Your task to perform on an android device: View the shopping cart on ebay.com. Add "razer blade" to the cart on ebay.com, then select checkout. Image 0: 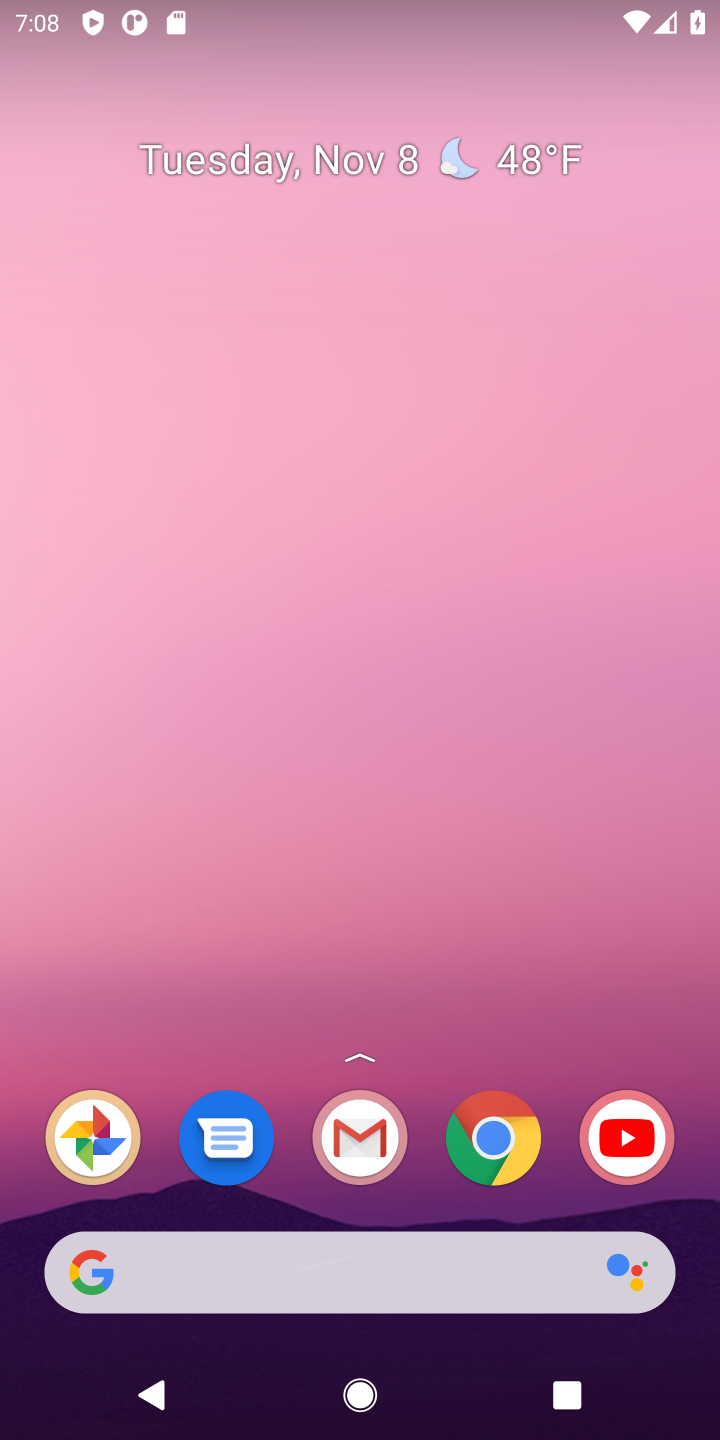
Step 0: click (492, 1147)
Your task to perform on an android device: View the shopping cart on ebay.com. Add "razer blade" to the cart on ebay.com, then select checkout. Image 1: 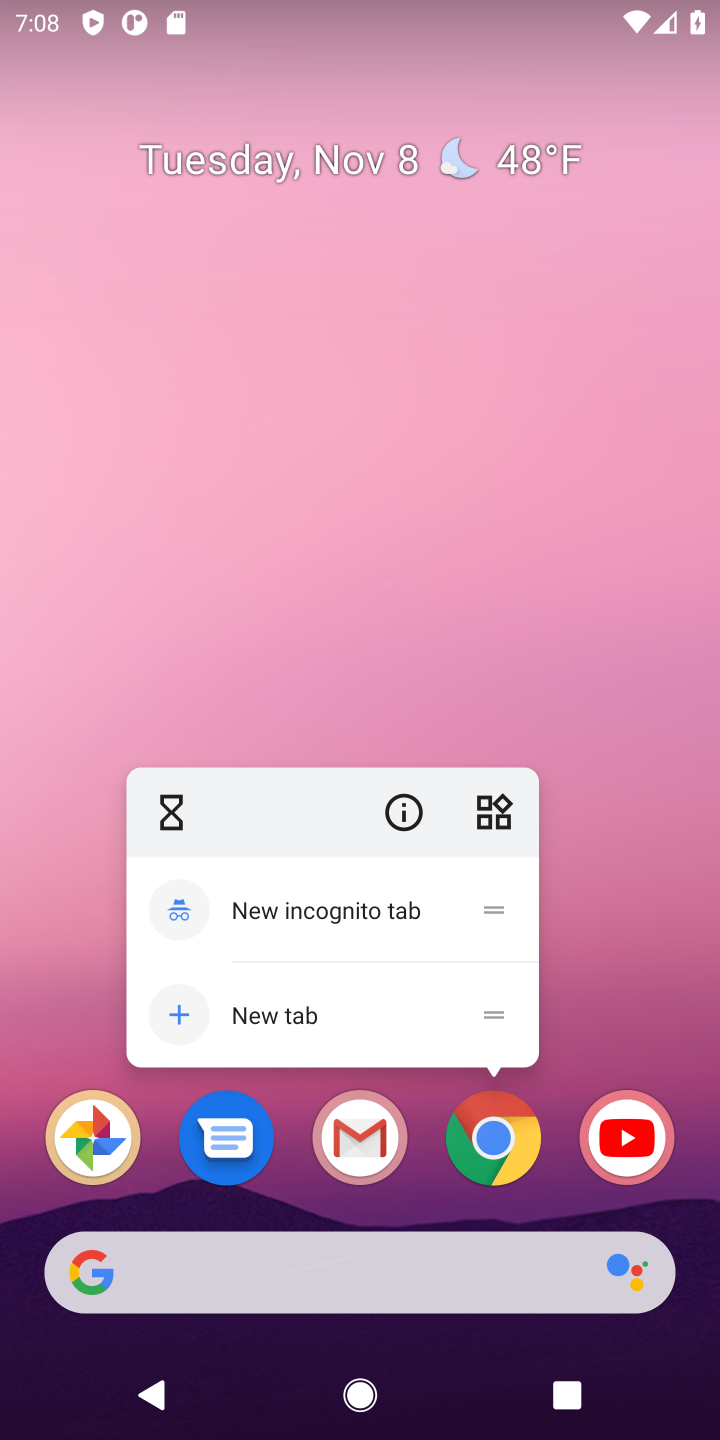
Step 1: click (483, 1134)
Your task to perform on an android device: View the shopping cart on ebay.com. Add "razer blade" to the cart on ebay.com, then select checkout. Image 2: 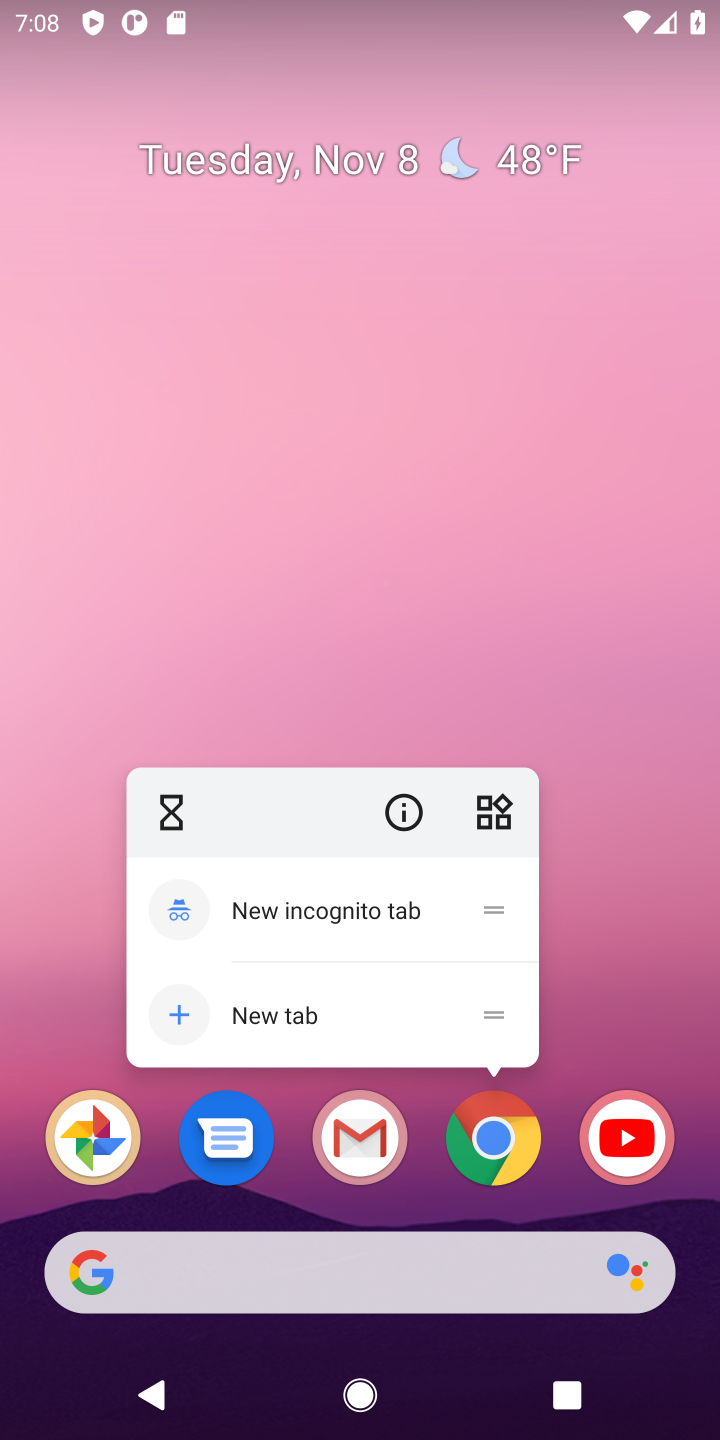
Step 2: click (483, 1136)
Your task to perform on an android device: View the shopping cart on ebay.com. Add "razer blade" to the cart on ebay.com, then select checkout. Image 3: 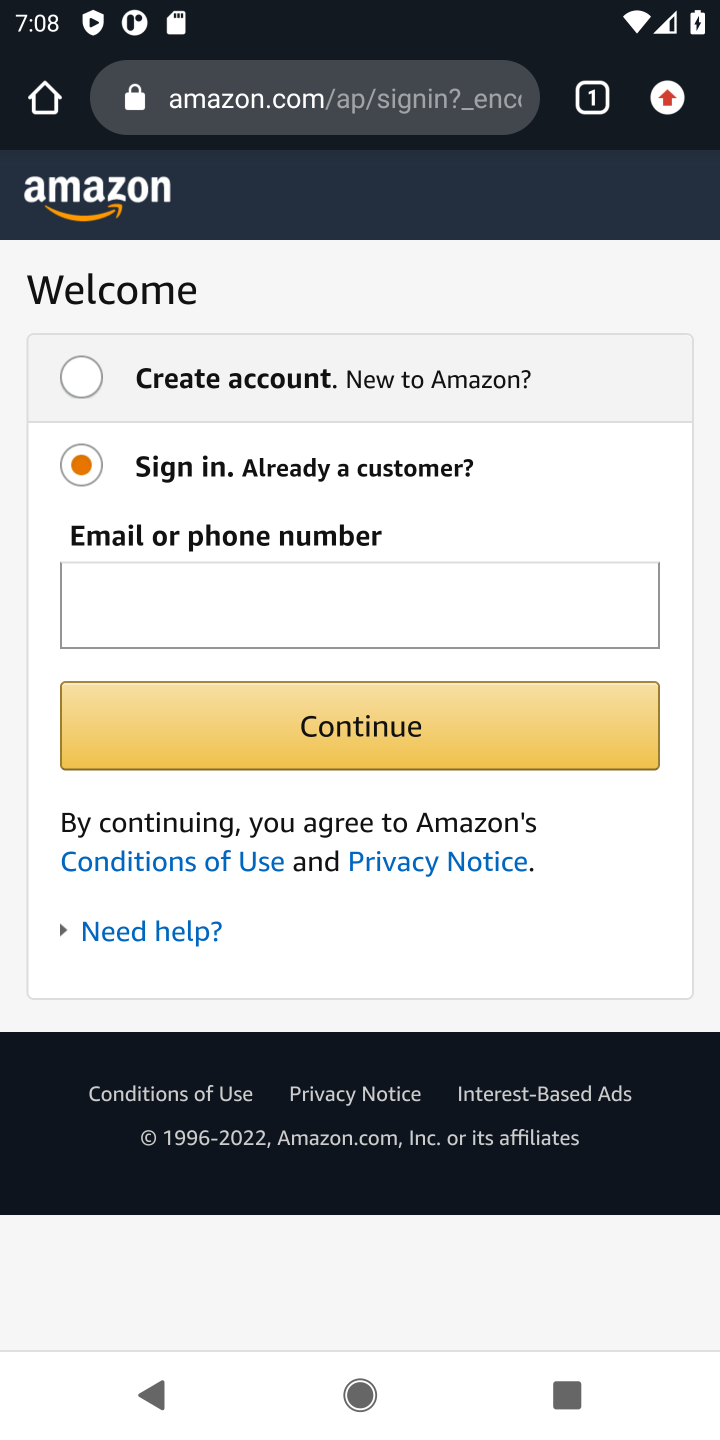
Step 3: click (441, 96)
Your task to perform on an android device: View the shopping cart on ebay.com. Add "razer blade" to the cart on ebay.com, then select checkout. Image 4: 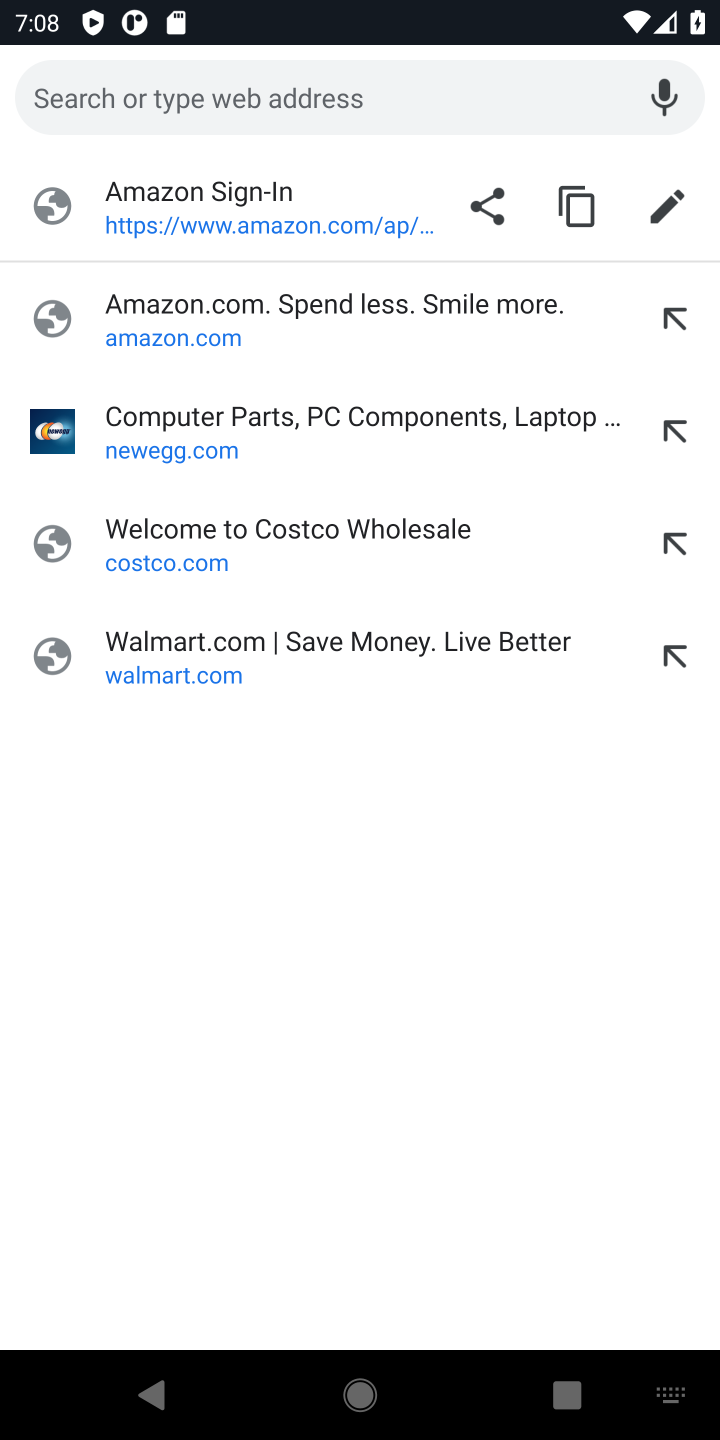
Step 4: type " ebay.com"
Your task to perform on an android device: View the shopping cart on ebay.com. Add "razer blade" to the cart on ebay.com, then select checkout. Image 5: 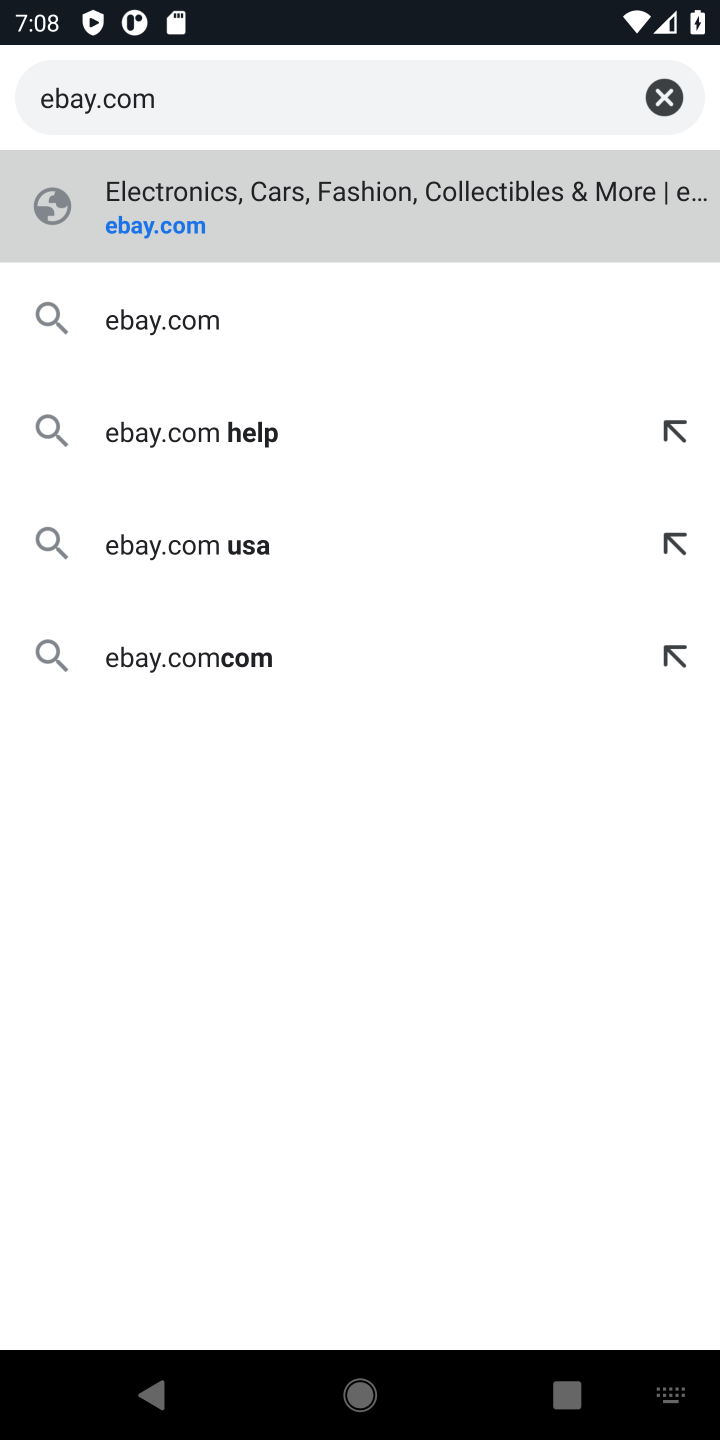
Step 5: press enter
Your task to perform on an android device: View the shopping cart on ebay.com. Add "razer blade" to the cart on ebay.com, then select checkout. Image 6: 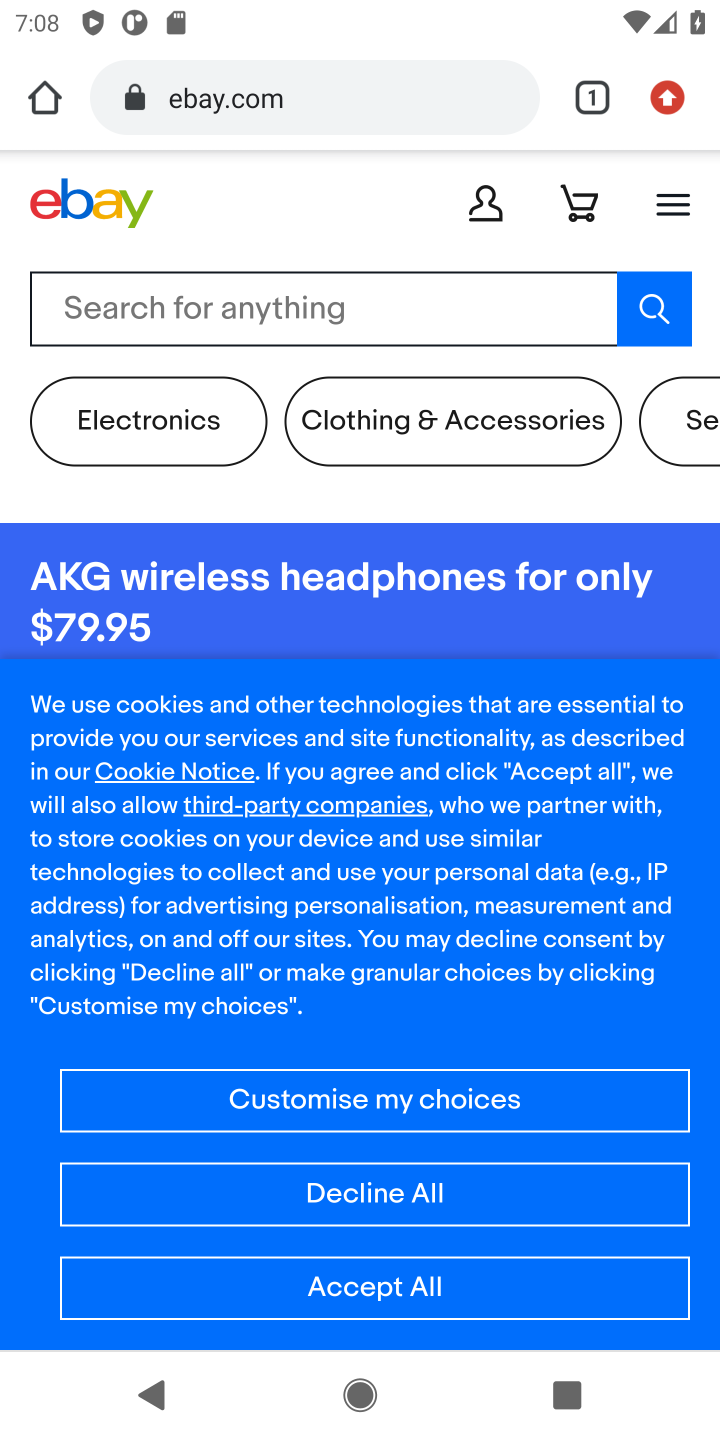
Step 6: click (357, 1291)
Your task to perform on an android device: View the shopping cart on ebay.com. Add "razer blade" to the cart on ebay.com, then select checkout. Image 7: 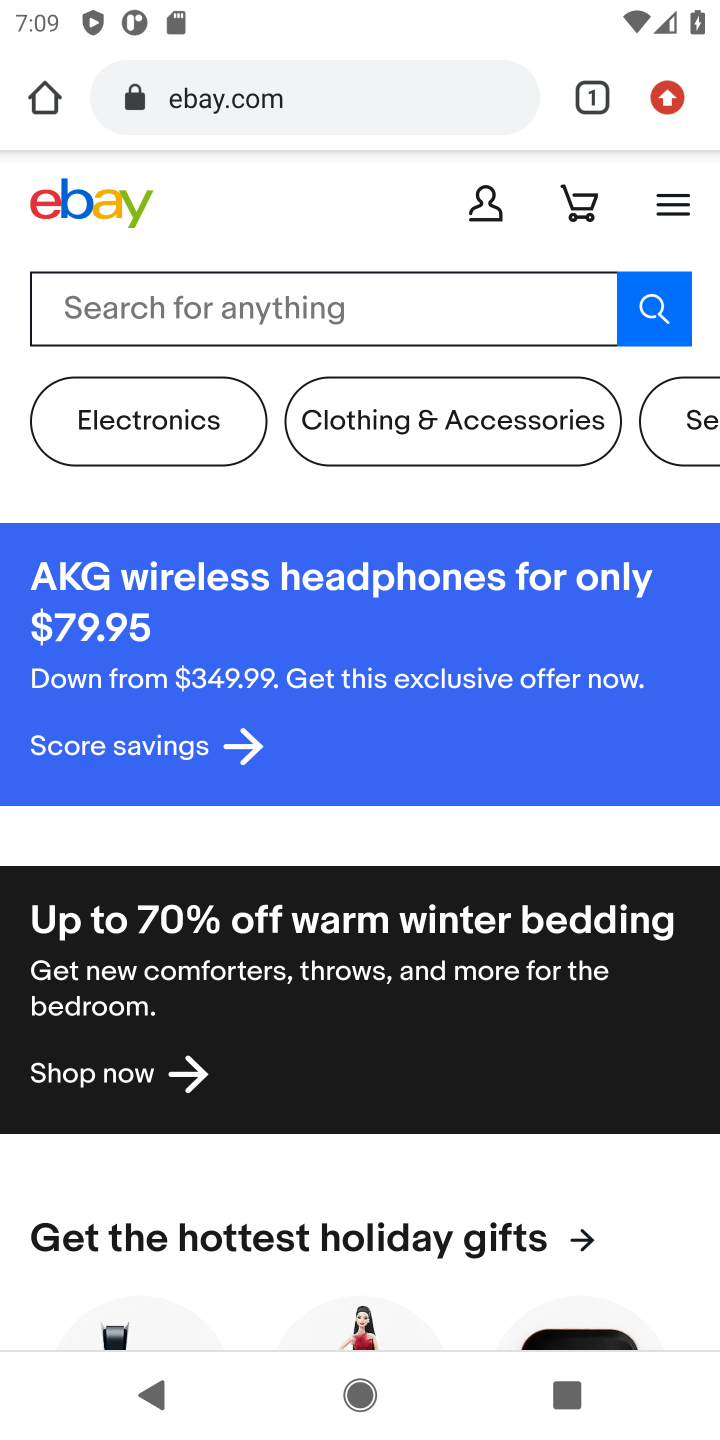
Step 7: click (312, 304)
Your task to perform on an android device: View the shopping cart on ebay.com. Add "razer blade" to the cart on ebay.com, then select checkout. Image 8: 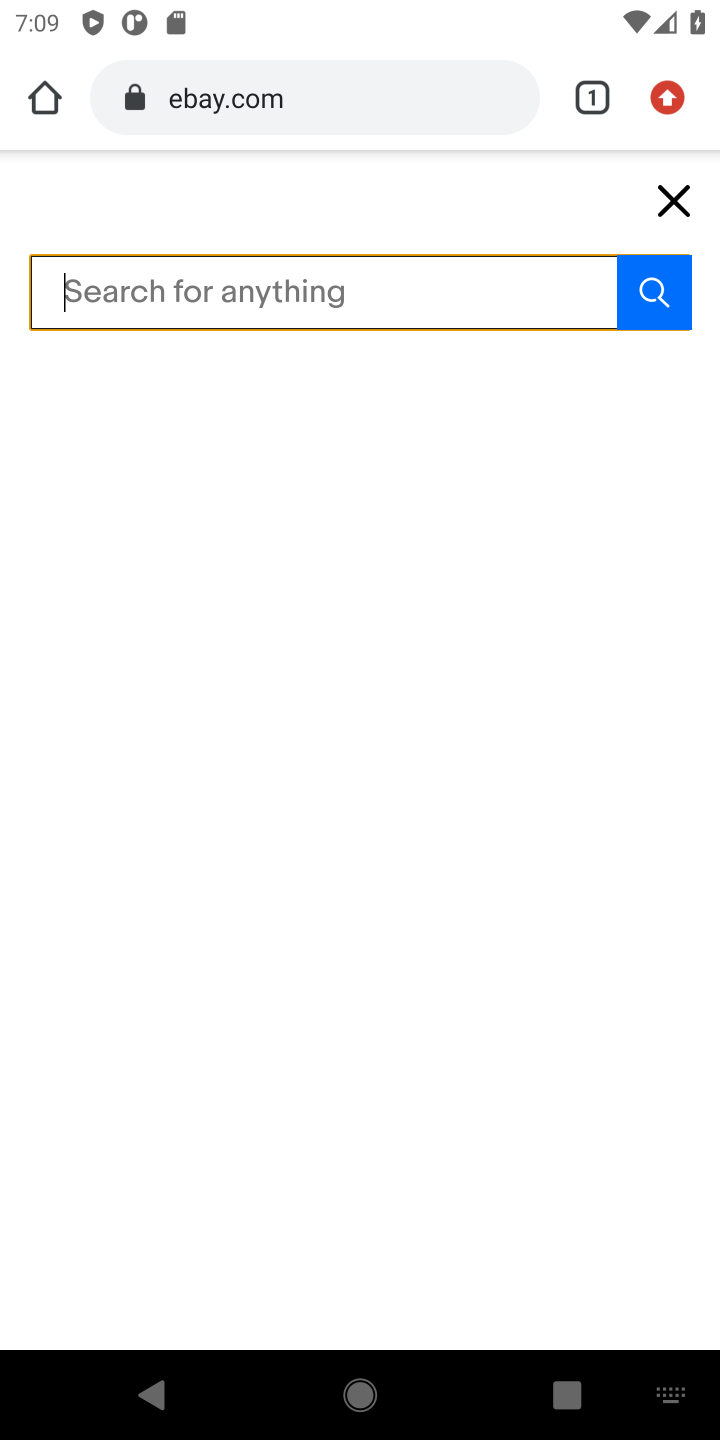
Step 8: type "razer blade"
Your task to perform on an android device: View the shopping cart on ebay.com. Add "razer blade" to the cart on ebay.com, then select checkout. Image 9: 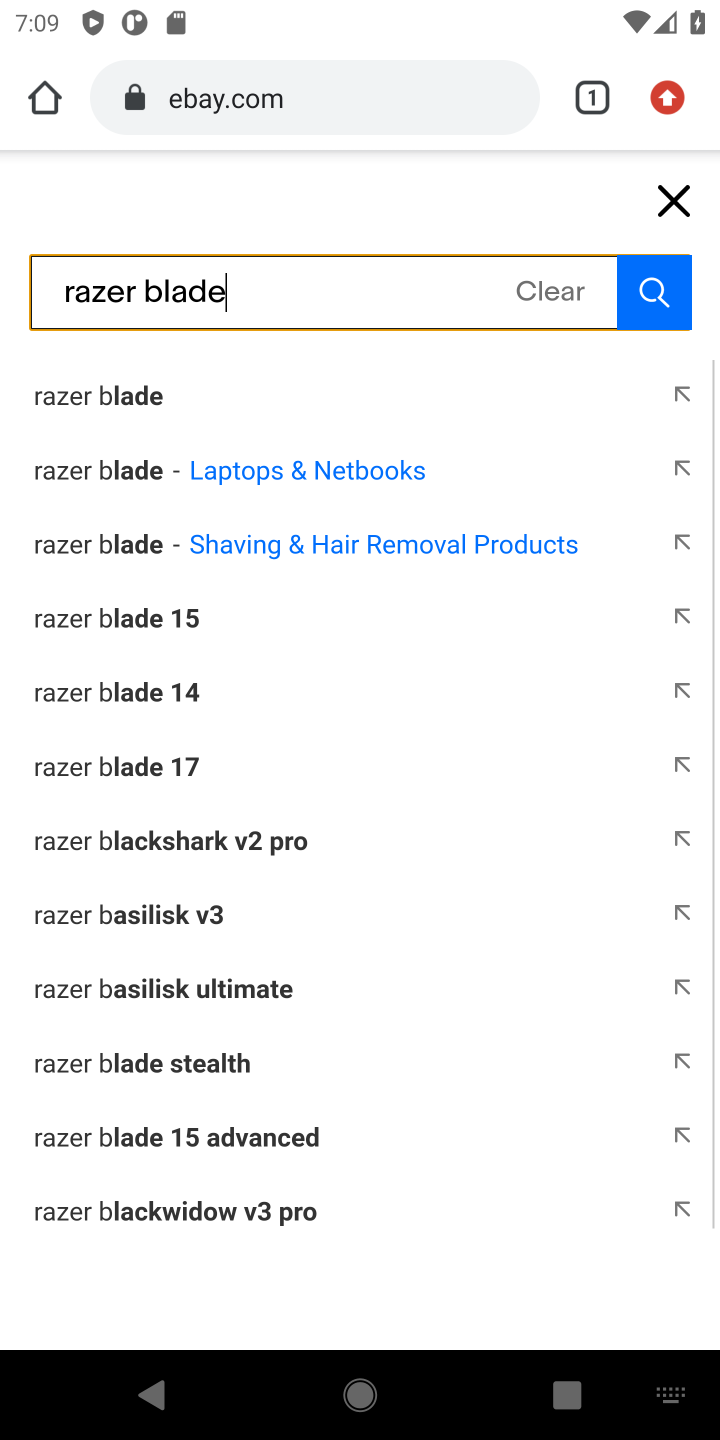
Step 9: press enter
Your task to perform on an android device: View the shopping cart on ebay.com. Add "razer blade" to the cart on ebay.com, then select checkout. Image 10: 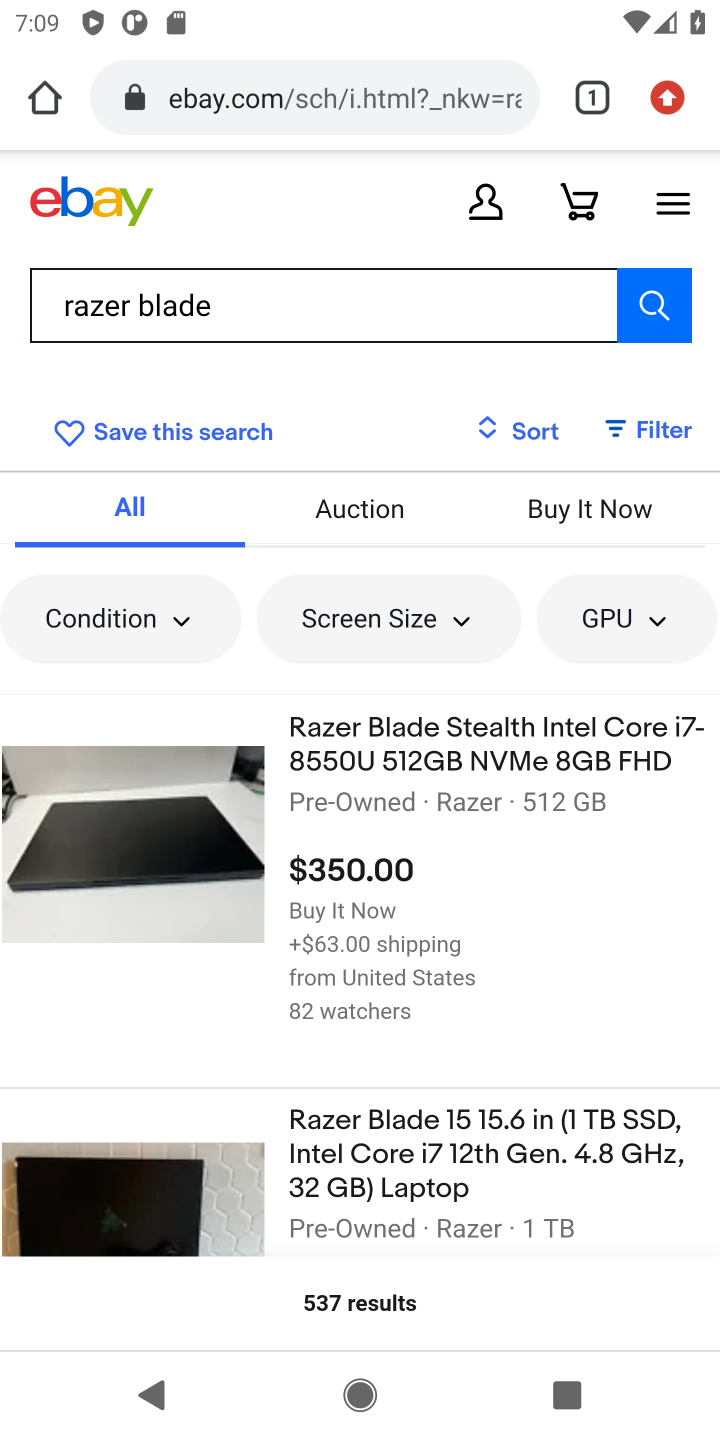
Step 10: click (484, 792)
Your task to perform on an android device: View the shopping cart on ebay.com. Add "razer blade" to the cart on ebay.com, then select checkout. Image 11: 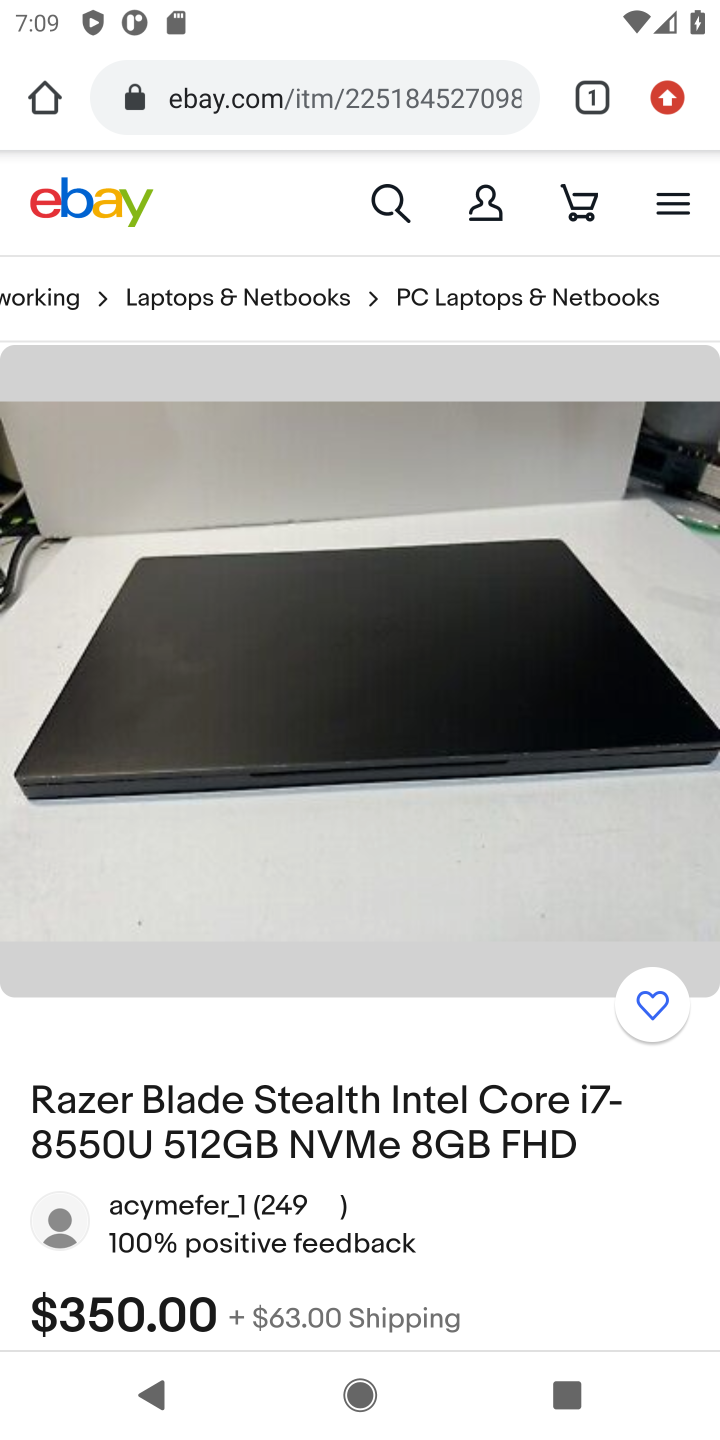
Step 11: drag from (357, 1145) to (557, 208)
Your task to perform on an android device: View the shopping cart on ebay.com. Add "razer blade" to the cart on ebay.com, then select checkout. Image 12: 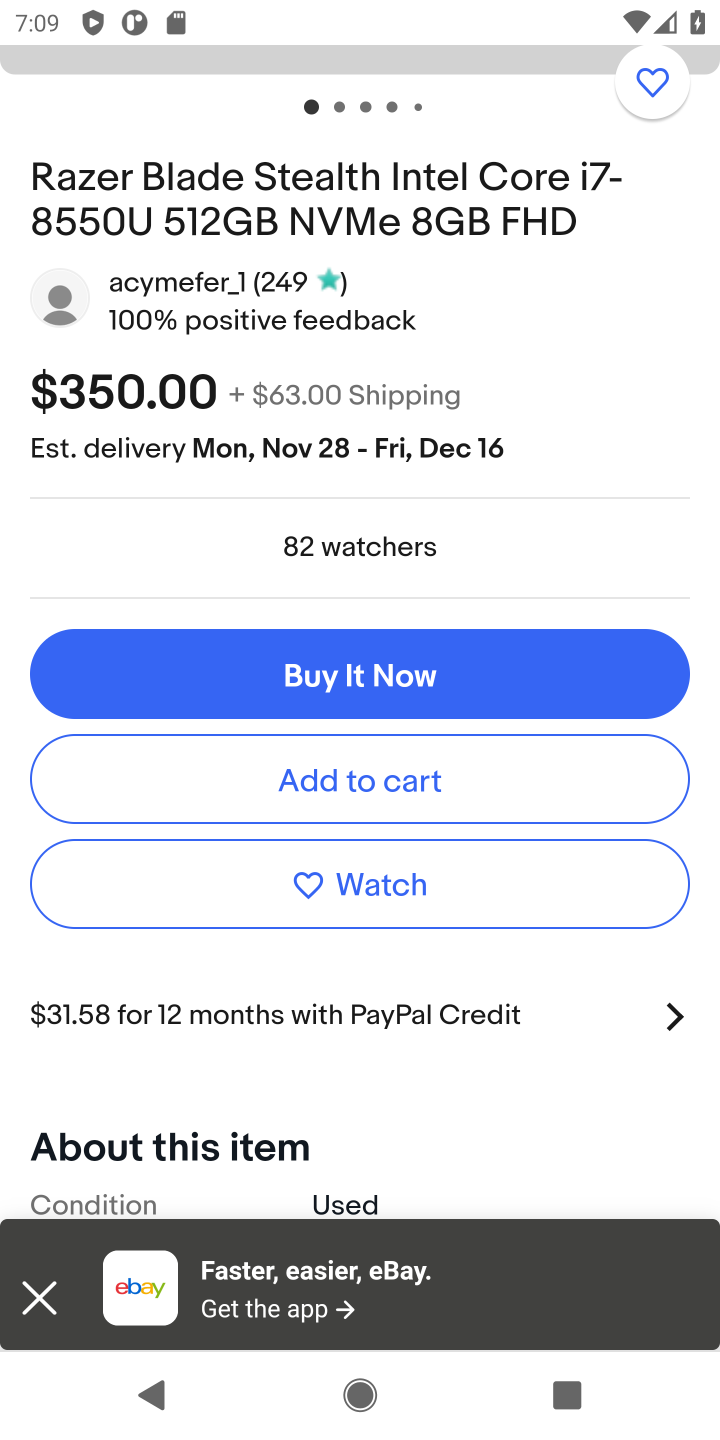
Step 12: click (378, 781)
Your task to perform on an android device: View the shopping cart on ebay.com. Add "razer blade" to the cart on ebay.com, then select checkout. Image 13: 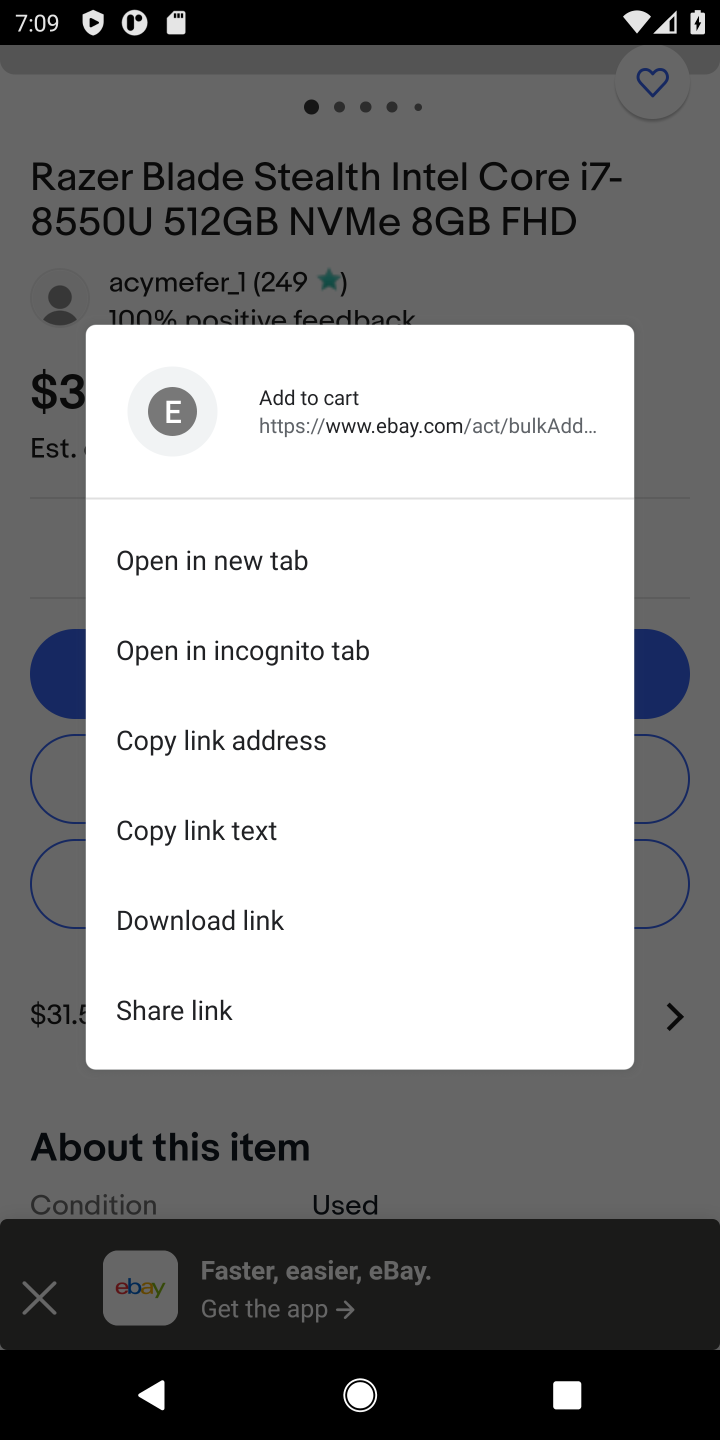
Step 13: click (640, 768)
Your task to perform on an android device: View the shopping cart on ebay.com. Add "razer blade" to the cart on ebay.com, then select checkout. Image 14: 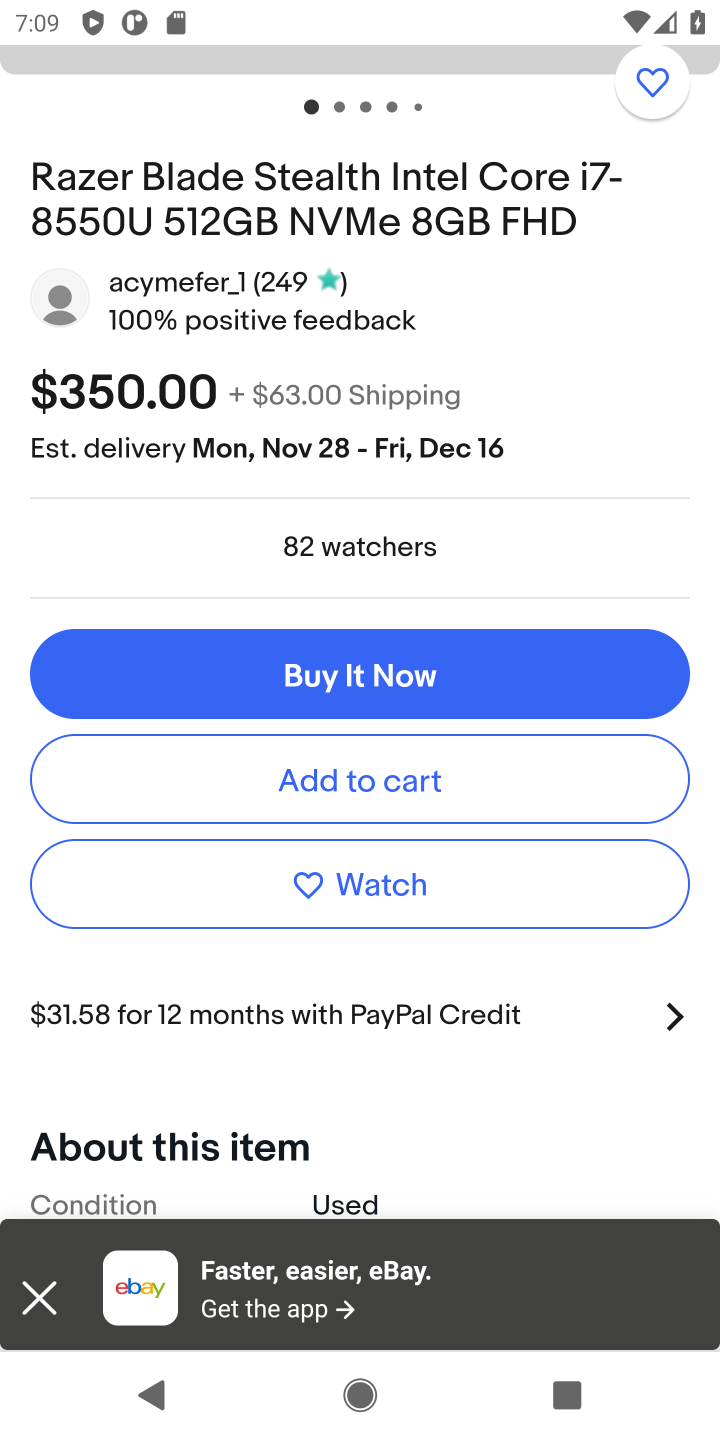
Step 14: click (332, 780)
Your task to perform on an android device: View the shopping cart on ebay.com. Add "razer blade" to the cart on ebay.com, then select checkout. Image 15: 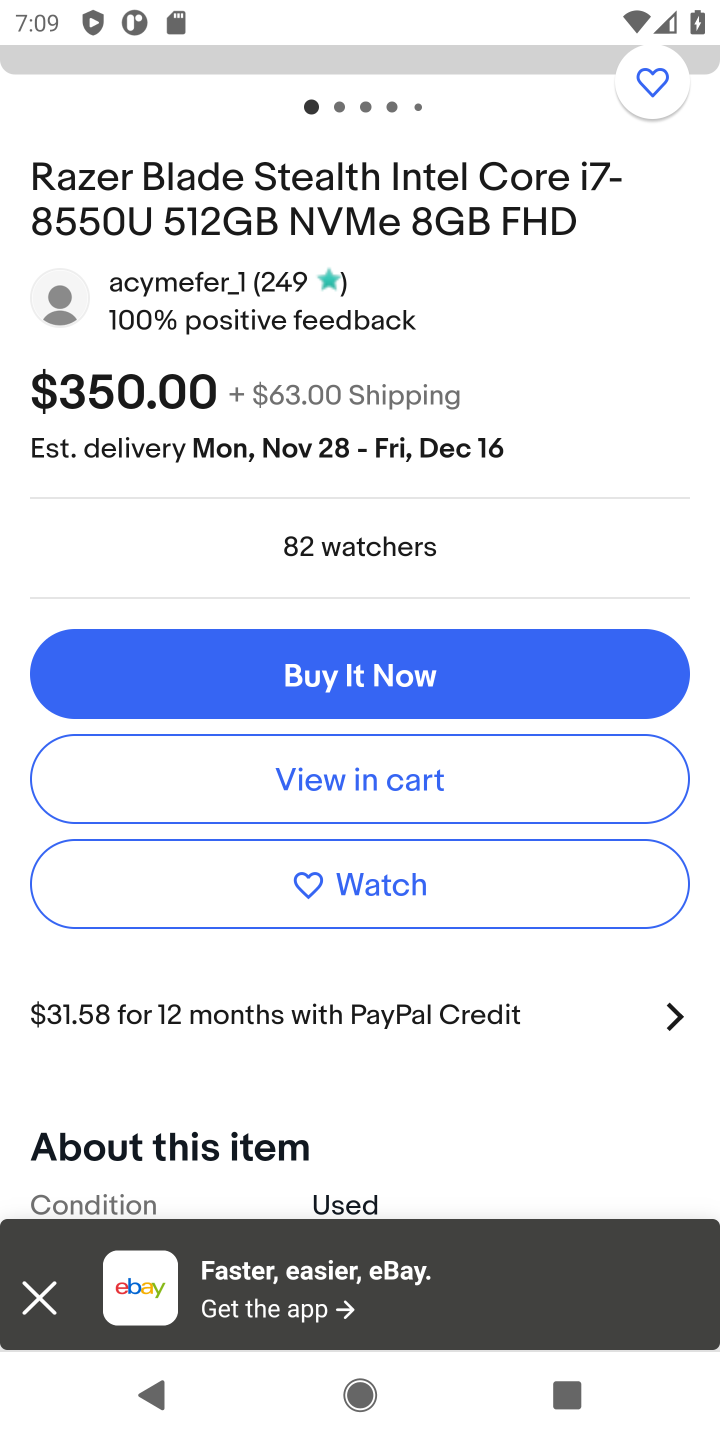
Step 15: click (368, 772)
Your task to perform on an android device: View the shopping cart on ebay.com. Add "razer blade" to the cart on ebay.com, then select checkout. Image 16: 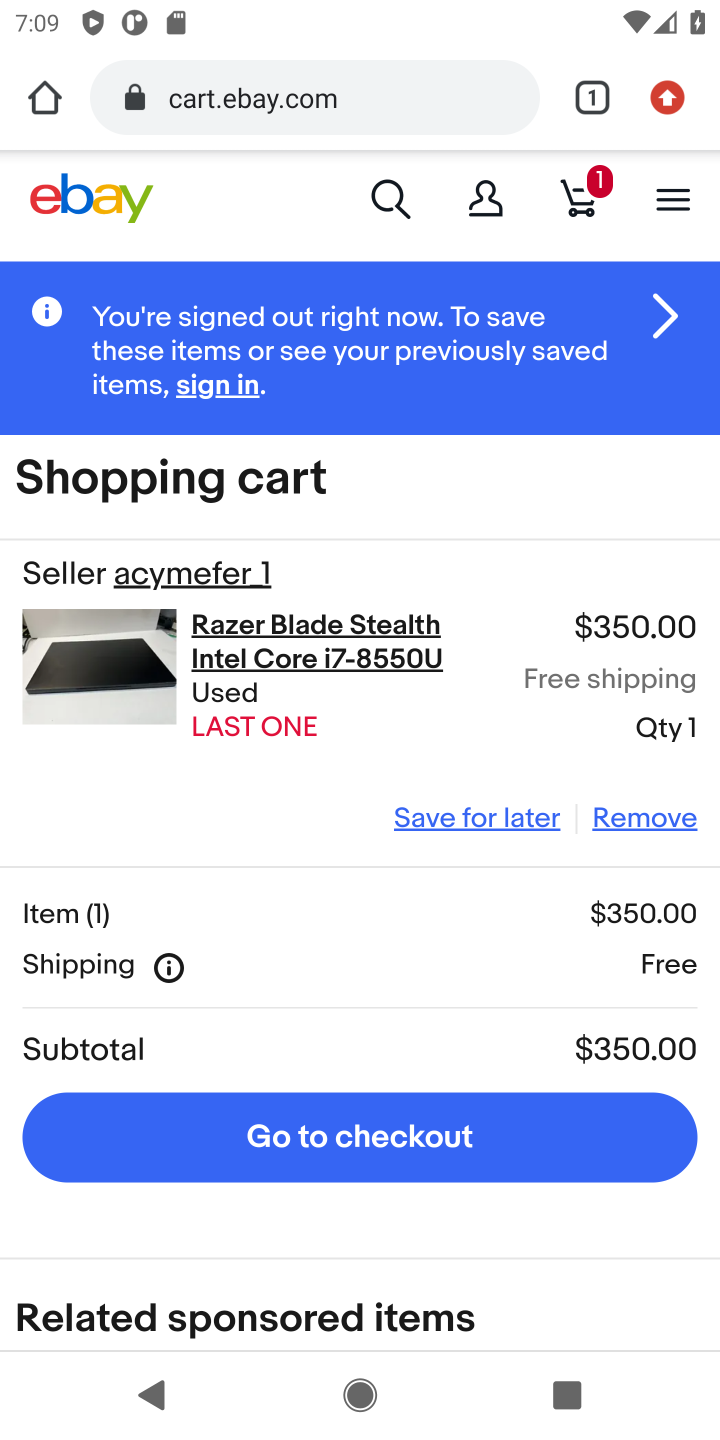
Step 16: click (366, 1129)
Your task to perform on an android device: View the shopping cart on ebay.com. Add "razer blade" to the cart on ebay.com, then select checkout. Image 17: 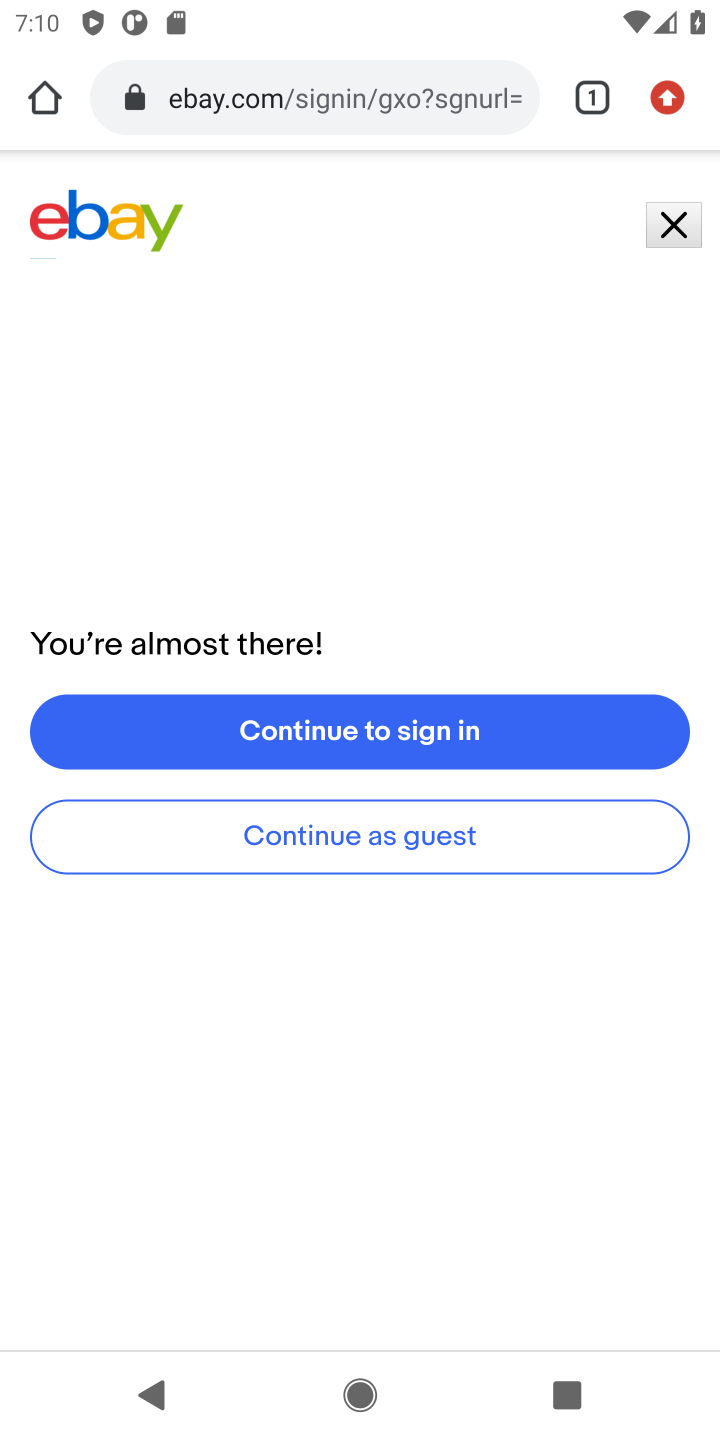
Step 17: task complete